Your task to perform on an android device: add a contact Image 0: 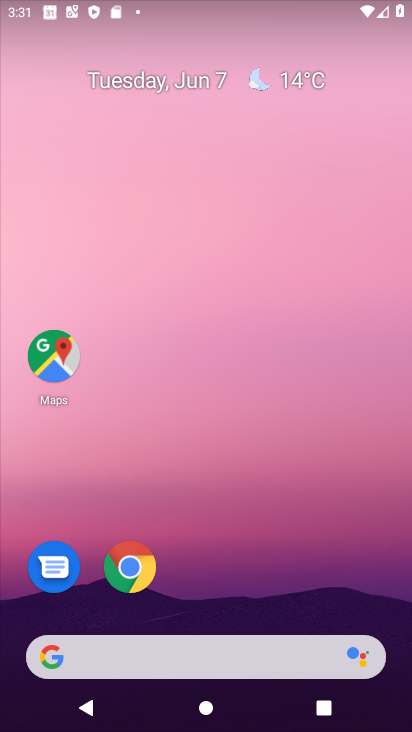
Step 0: drag from (206, 599) to (214, 265)
Your task to perform on an android device: add a contact Image 1: 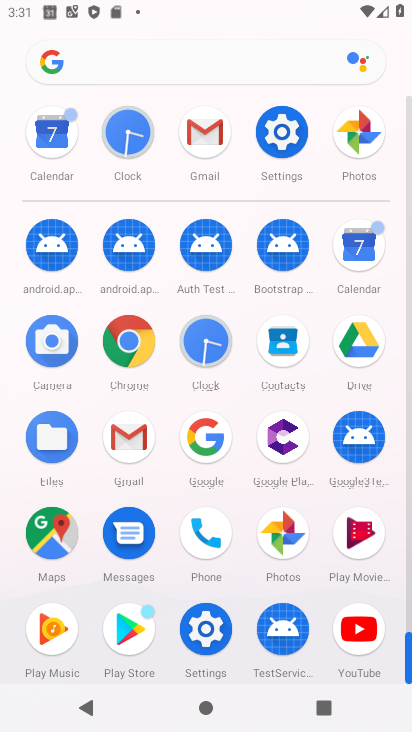
Step 1: click (268, 359)
Your task to perform on an android device: add a contact Image 2: 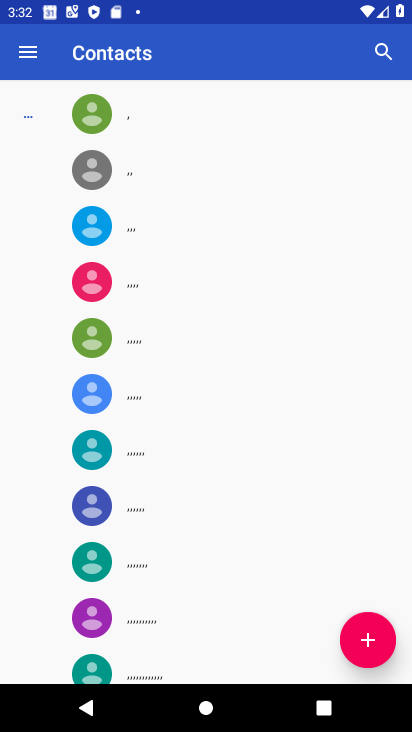
Step 2: click (376, 633)
Your task to perform on an android device: add a contact Image 3: 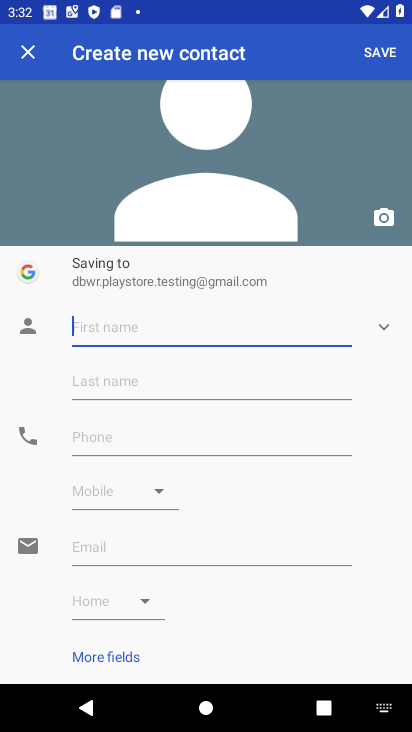
Step 3: type "tdhdtf"
Your task to perform on an android device: add a contact Image 4: 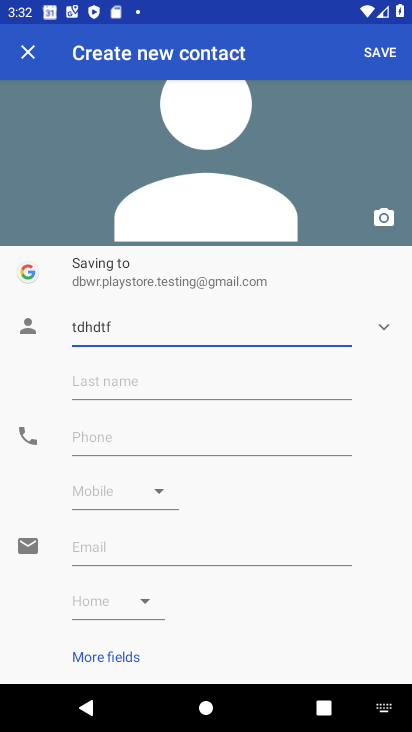
Step 4: click (127, 434)
Your task to perform on an android device: add a contact Image 5: 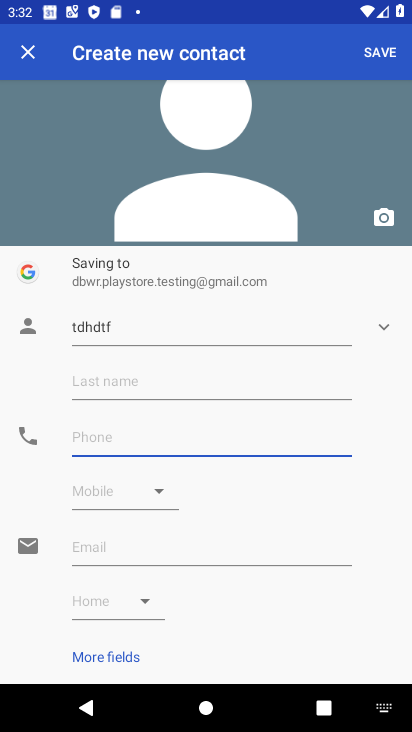
Step 5: type "97687567"
Your task to perform on an android device: add a contact Image 6: 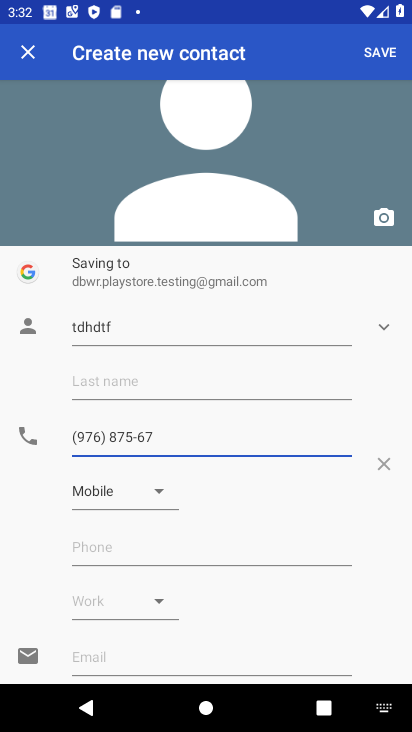
Step 6: click (393, 62)
Your task to perform on an android device: add a contact Image 7: 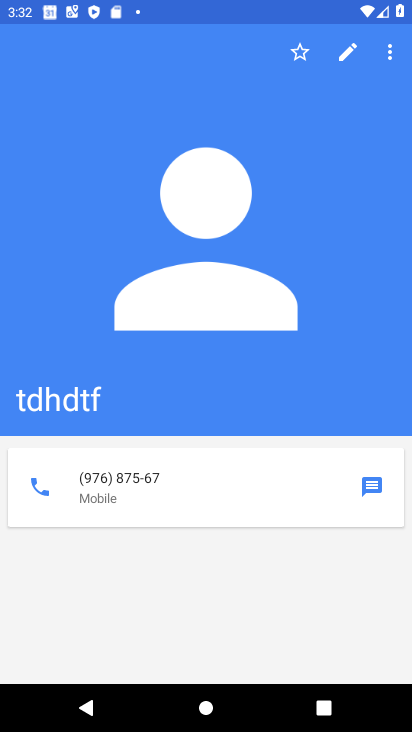
Step 7: task complete